Your task to perform on an android device: change the clock display to analog Image 0: 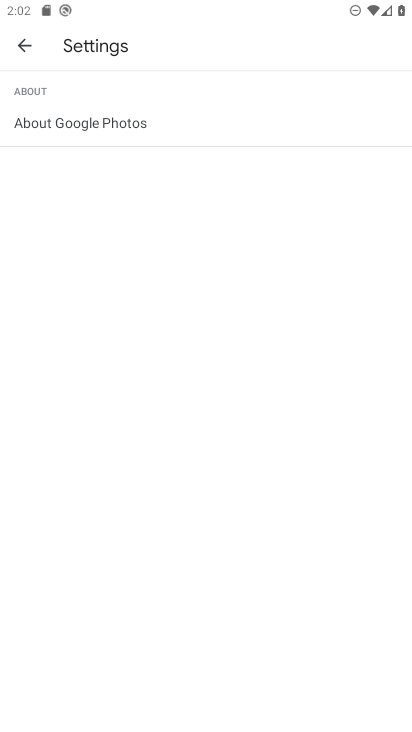
Step 0: press home button
Your task to perform on an android device: change the clock display to analog Image 1: 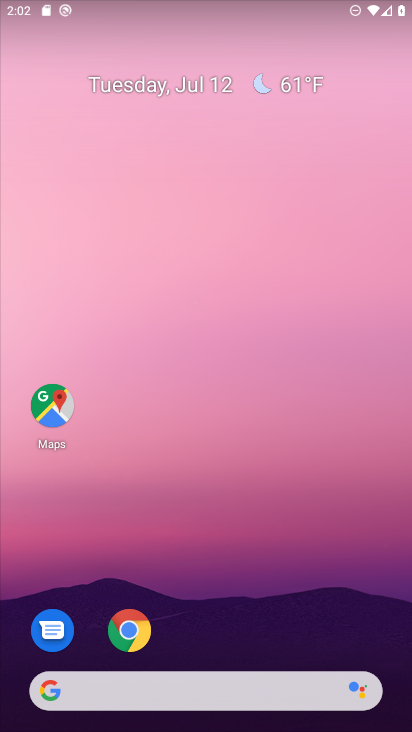
Step 1: drag from (226, 644) to (198, 150)
Your task to perform on an android device: change the clock display to analog Image 2: 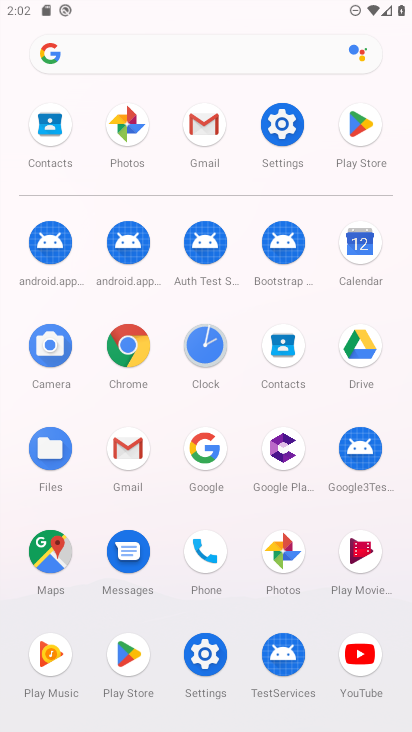
Step 2: click (192, 357)
Your task to perform on an android device: change the clock display to analog Image 3: 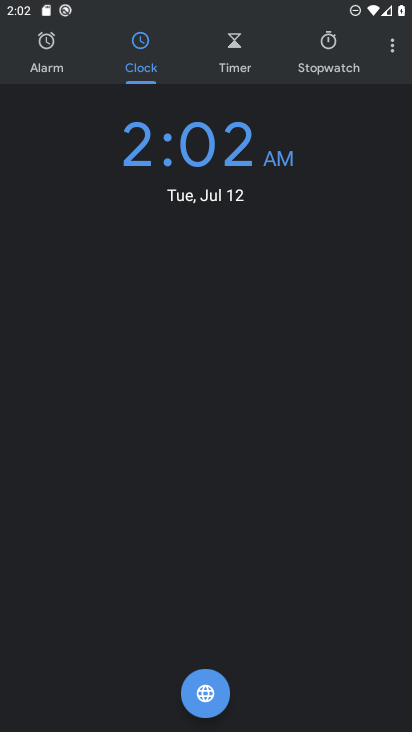
Step 3: click (388, 40)
Your task to perform on an android device: change the clock display to analog Image 4: 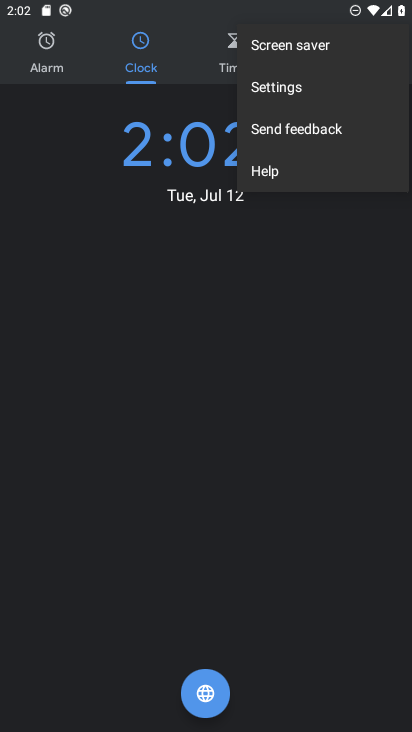
Step 4: click (336, 85)
Your task to perform on an android device: change the clock display to analog Image 5: 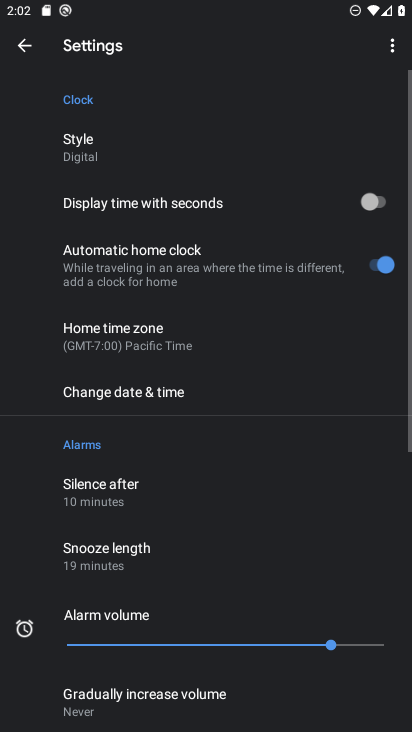
Step 5: click (165, 135)
Your task to perform on an android device: change the clock display to analog Image 6: 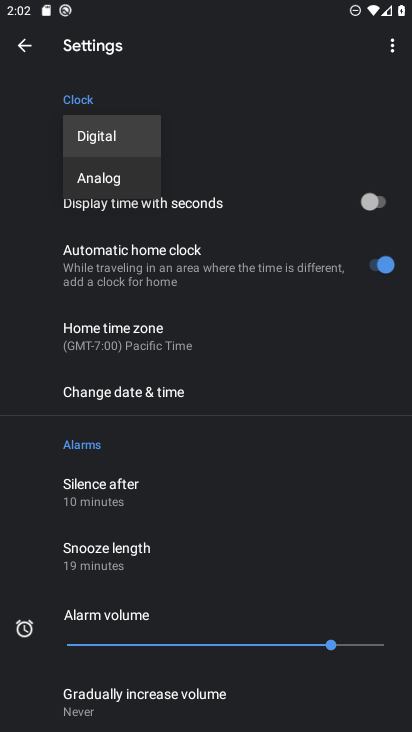
Step 6: click (112, 182)
Your task to perform on an android device: change the clock display to analog Image 7: 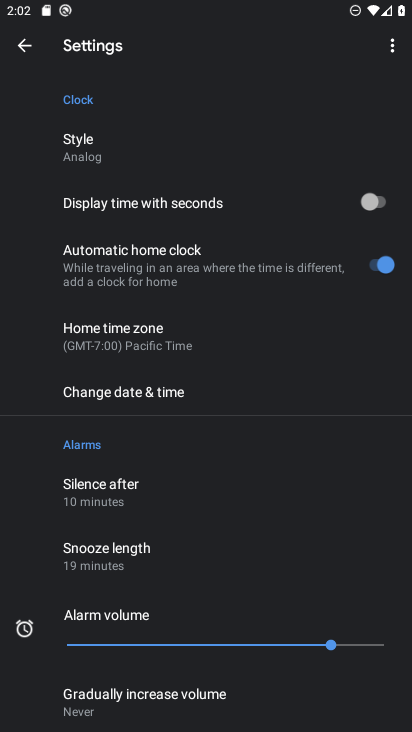
Step 7: task complete